Your task to perform on an android device: set the timer Image 0: 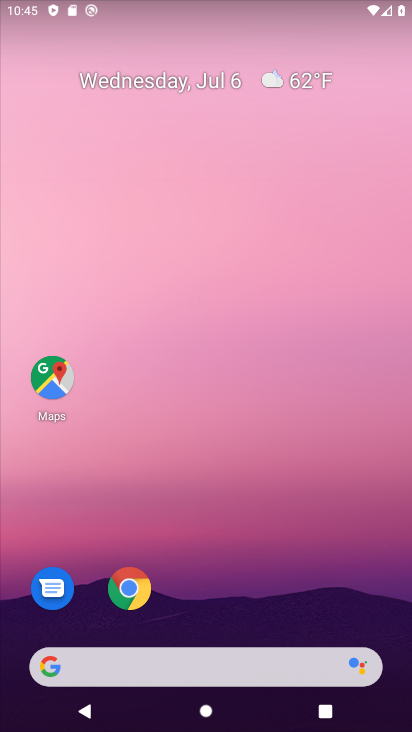
Step 0: drag from (345, 617) to (335, 58)
Your task to perform on an android device: set the timer Image 1: 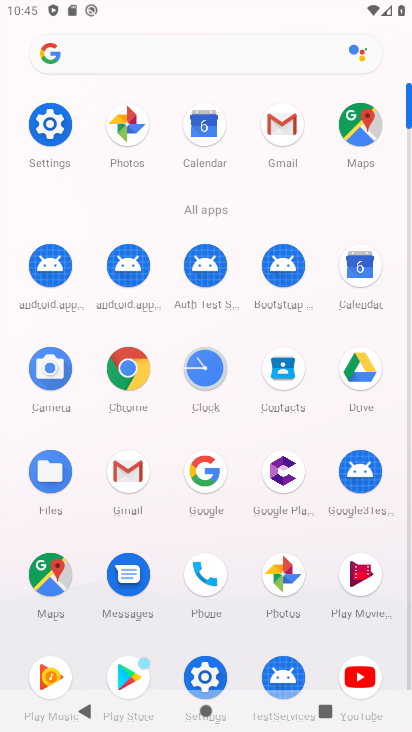
Step 1: click (205, 371)
Your task to perform on an android device: set the timer Image 2: 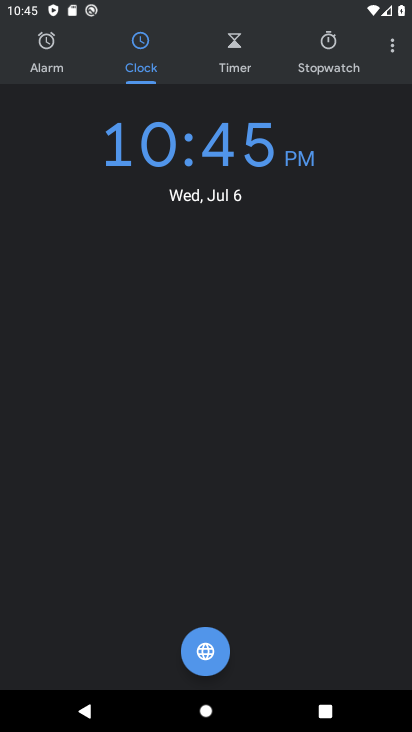
Step 2: click (238, 61)
Your task to perform on an android device: set the timer Image 3: 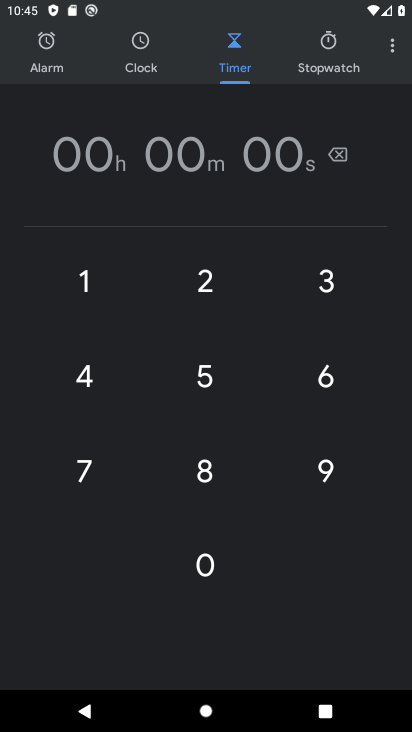
Step 3: click (89, 287)
Your task to perform on an android device: set the timer Image 4: 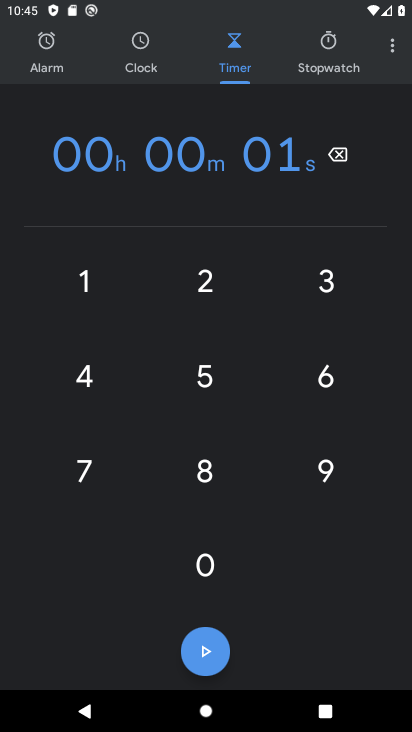
Step 4: click (315, 287)
Your task to perform on an android device: set the timer Image 5: 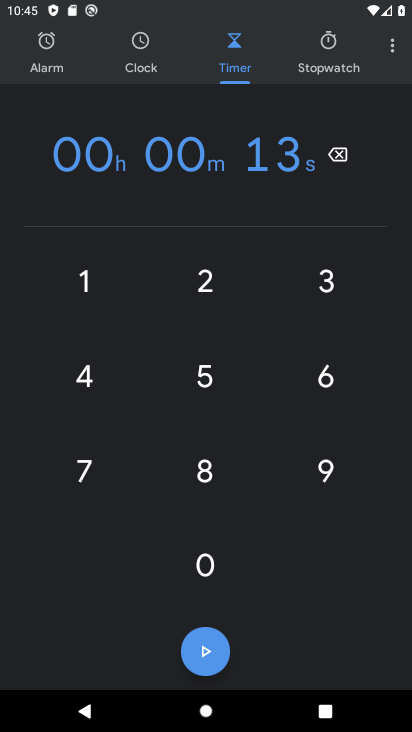
Step 5: click (206, 571)
Your task to perform on an android device: set the timer Image 6: 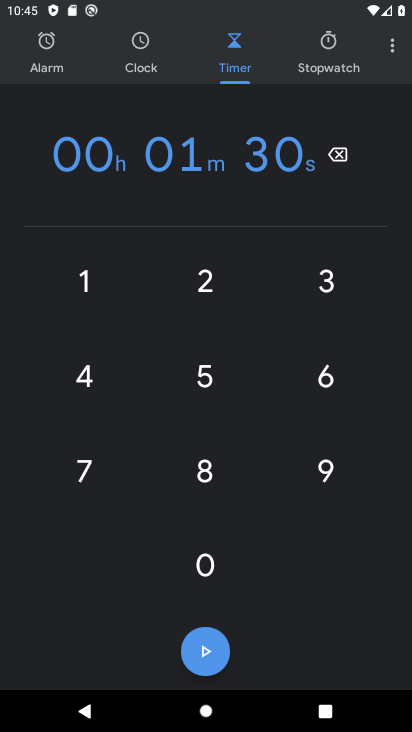
Step 6: click (206, 571)
Your task to perform on an android device: set the timer Image 7: 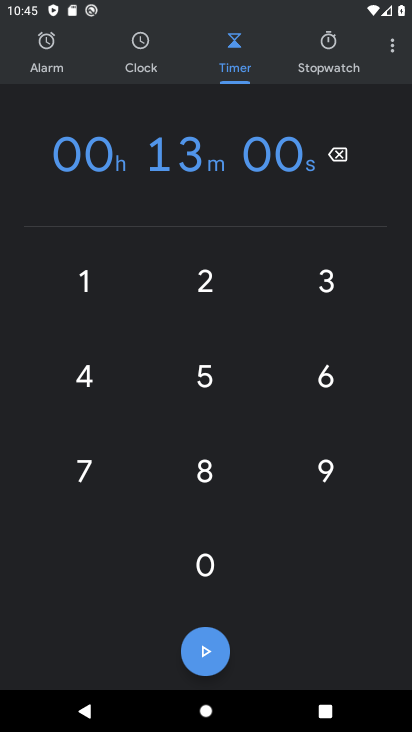
Step 7: click (206, 571)
Your task to perform on an android device: set the timer Image 8: 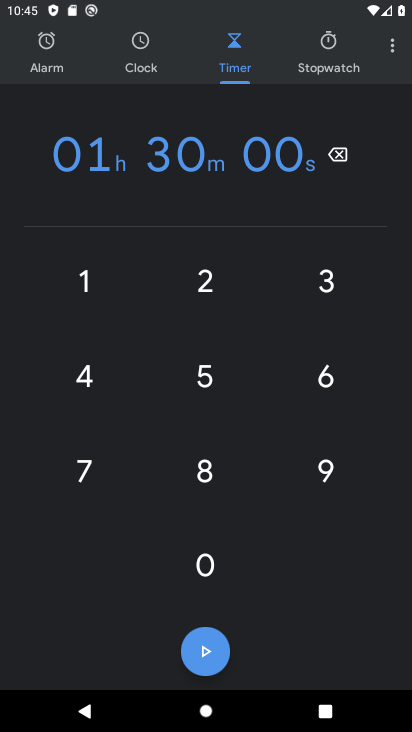
Step 8: task complete